Your task to perform on an android device: open a bookmark in the chrome app Image 0: 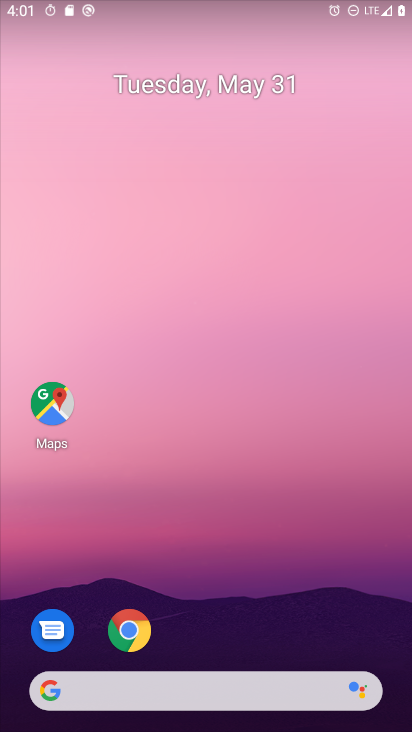
Step 0: drag from (293, 678) to (356, 54)
Your task to perform on an android device: open a bookmark in the chrome app Image 1: 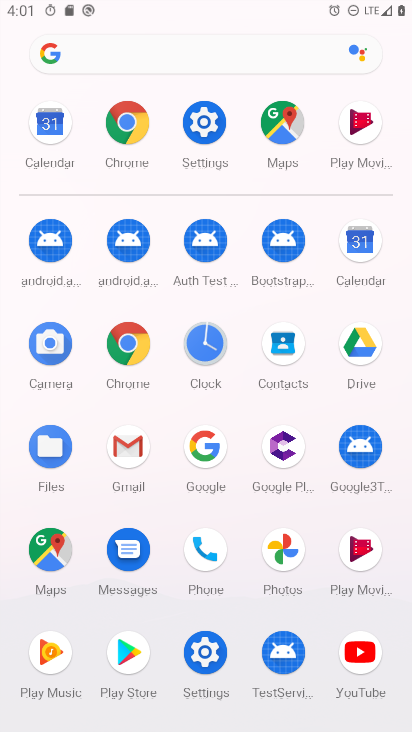
Step 1: click (132, 360)
Your task to perform on an android device: open a bookmark in the chrome app Image 2: 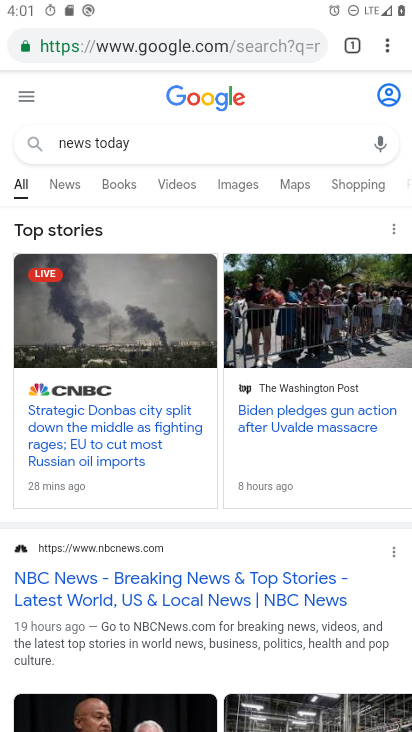
Step 2: task complete